Your task to perform on an android device: open app "Gmail" (install if not already installed) and enter user name: "undecidable@inbox.com" and password: "discouraging" Image 0: 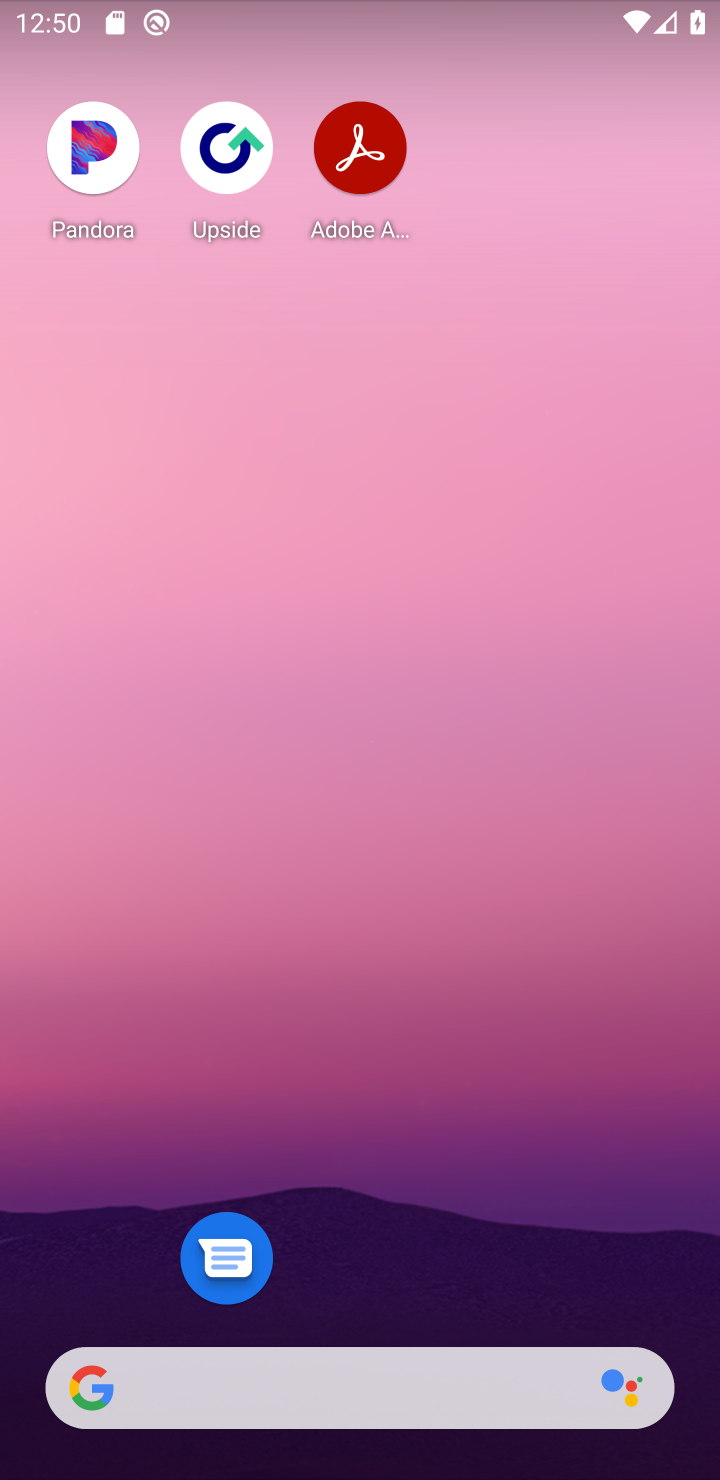
Step 0: drag from (272, 1260) to (389, 345)
Your task to perform on an android device: open app "Gmail" (install if not already installed) and enter user name: "undecidable@inbox.com" and password: "discouraging" Image 1: 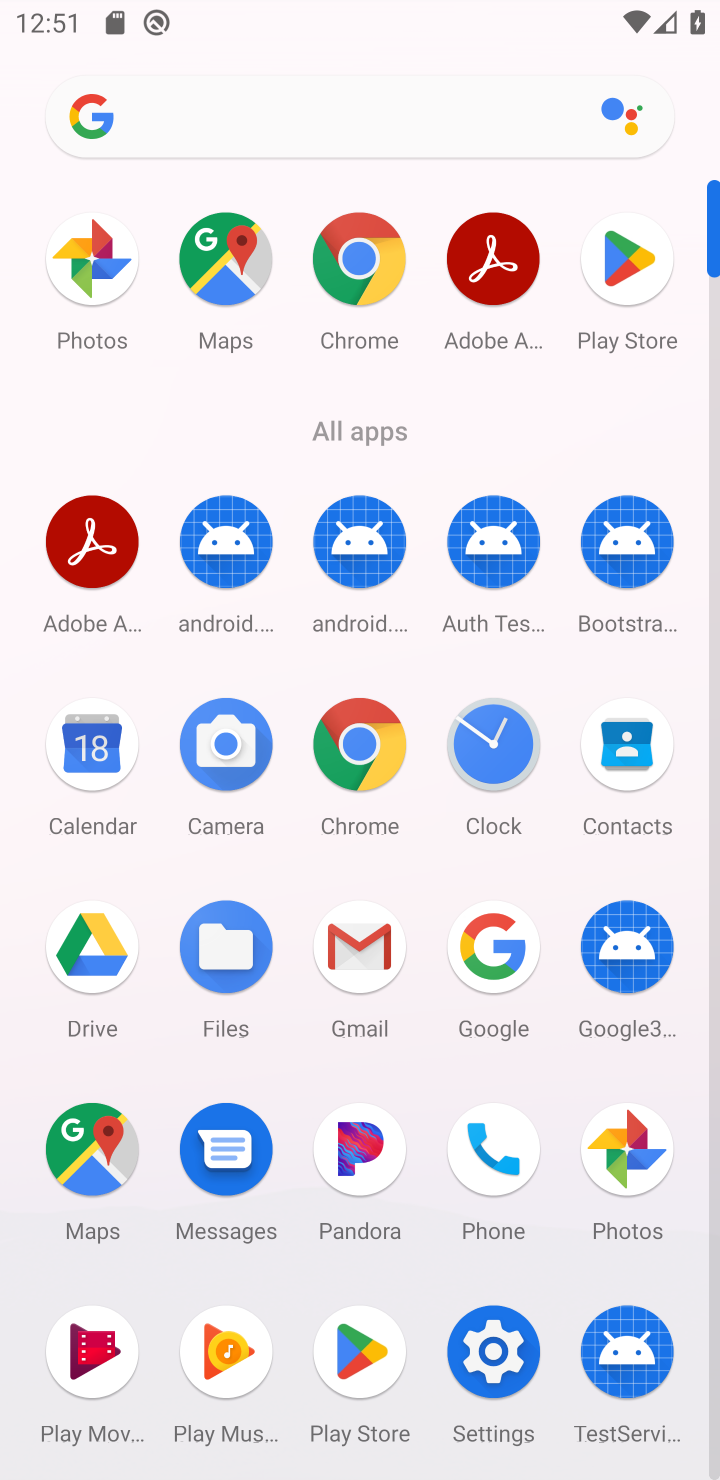
Step 1: click (632, 295)
Your task to perform on an android device: open app "Gmail" (install if not already installed) and enter user name: "undecidable@inbox.com" and password: "discouraging" Image 2: 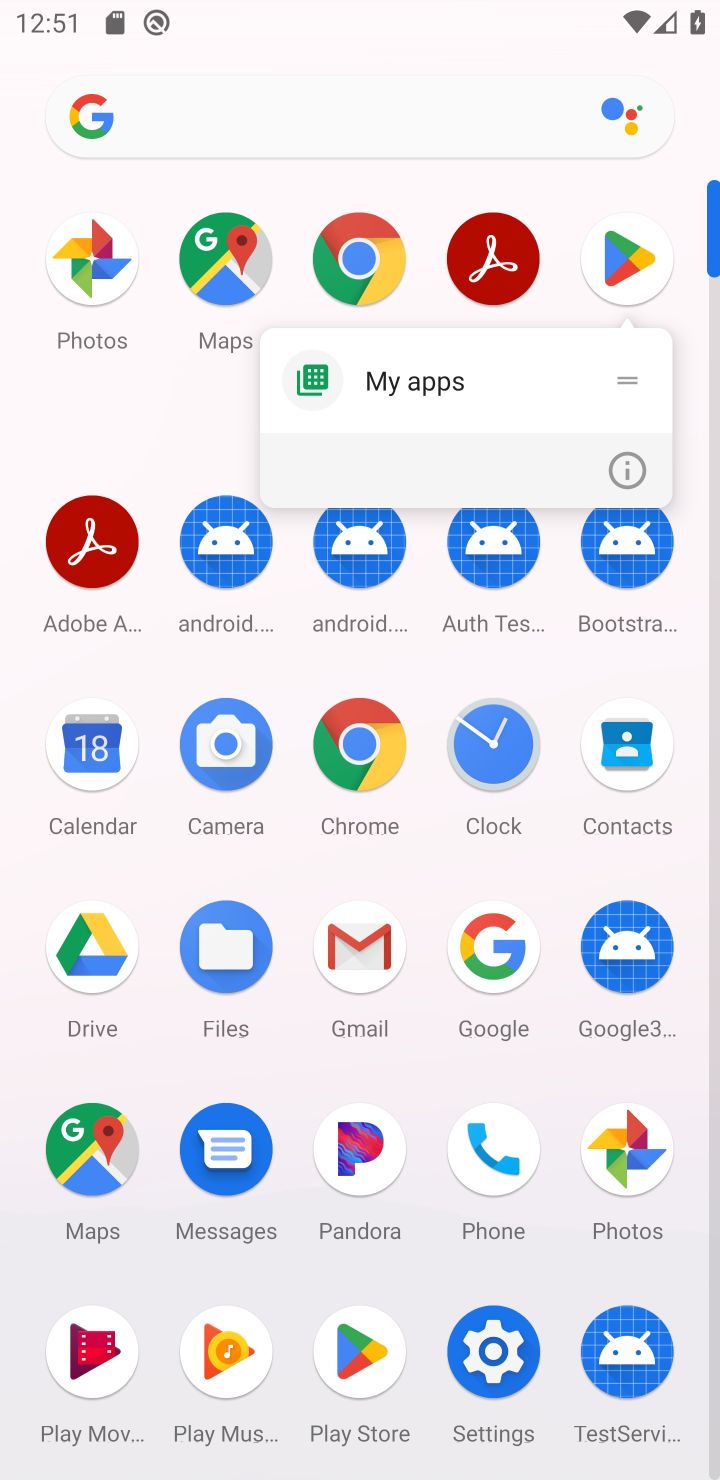
Step 2: click (632, 284)
Your task to perform on an android device: open app "Gmail" (install if not already installed) and enter user name: "undecidable@inbox.com" and password: "discouraging" Image 3: 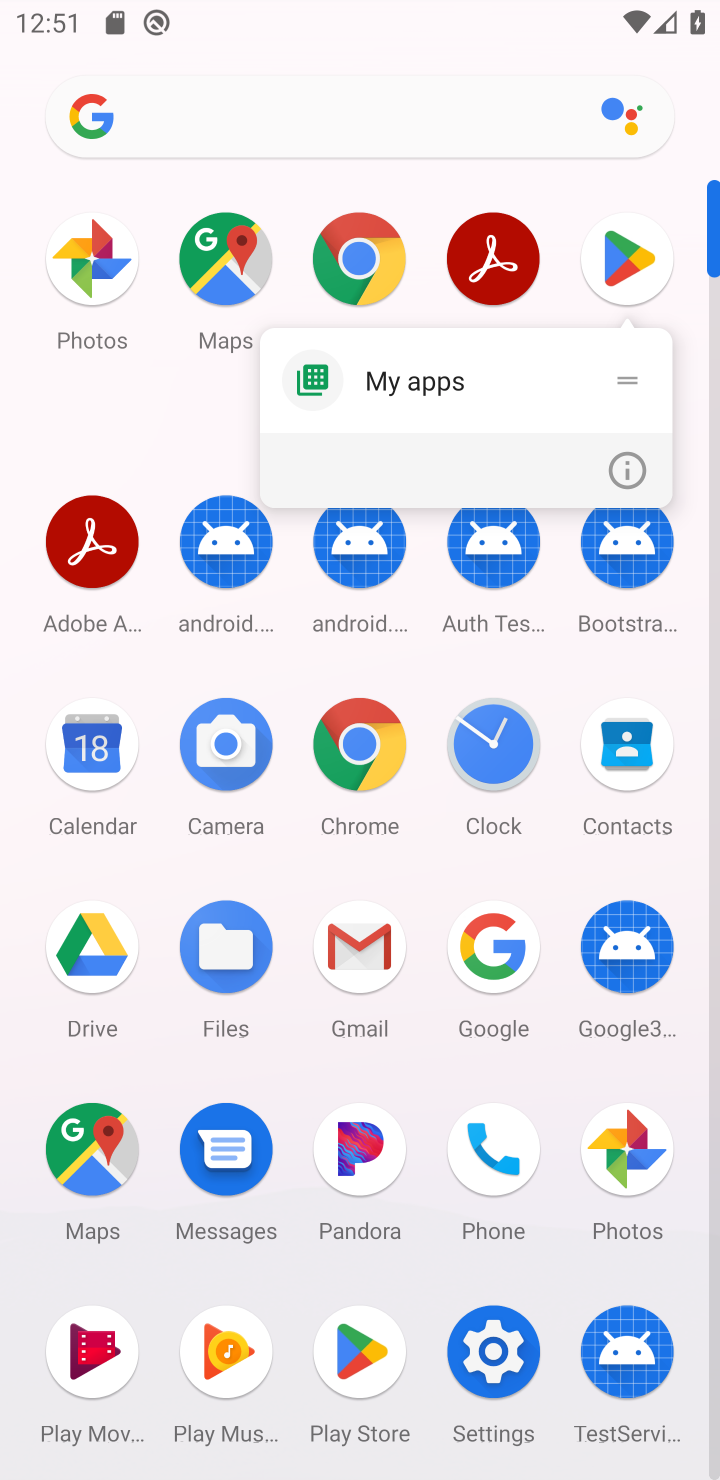
Step 3: click (632, 284)
Your task to perform on an android device: open app "Gmail" (install if not already installed) and enter user name: "undecidable@inbox.com" and password: "discouraging" Image 4: 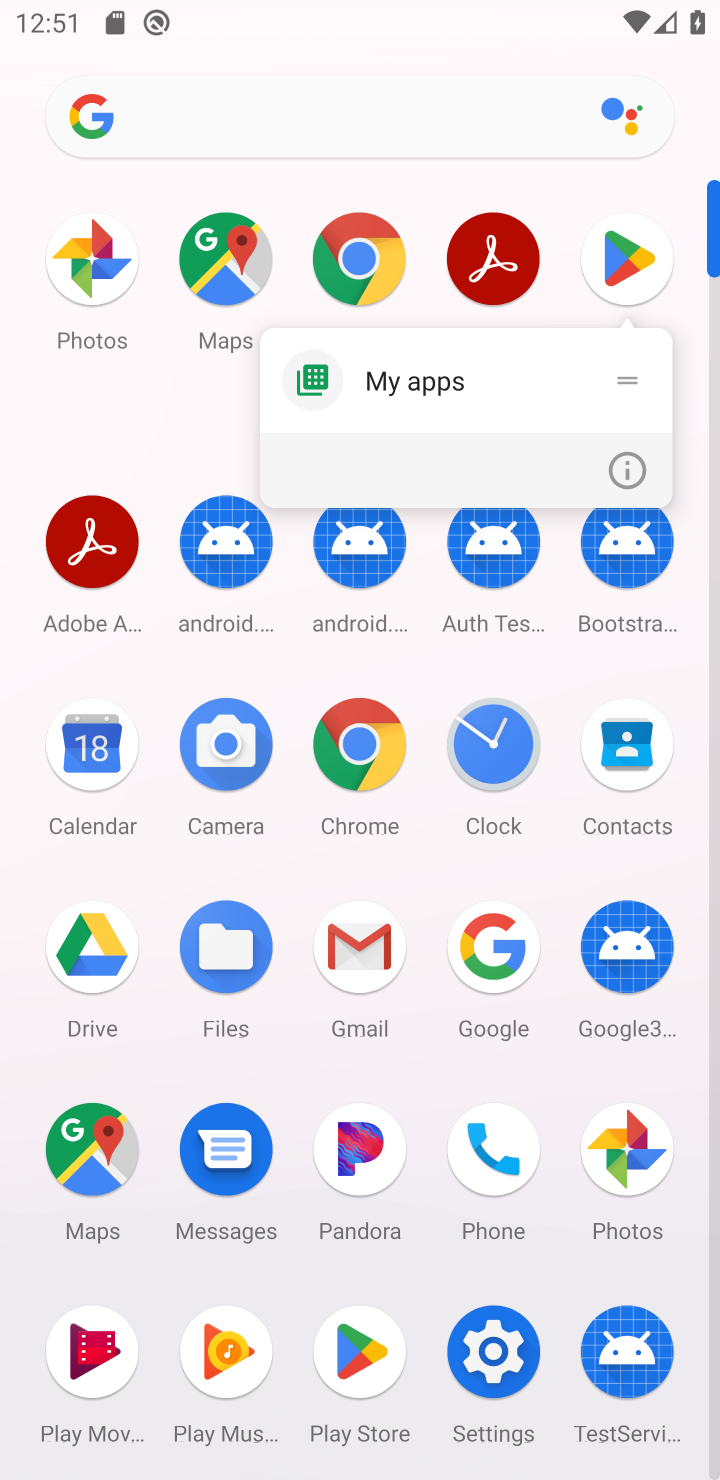
Step 4: click (620, 254)
Your task to perform on an android device: open app "Gmail" (install if not already installed) and enter user name: "undecidable@inbox.com" and password: "discouraging" Image 5: 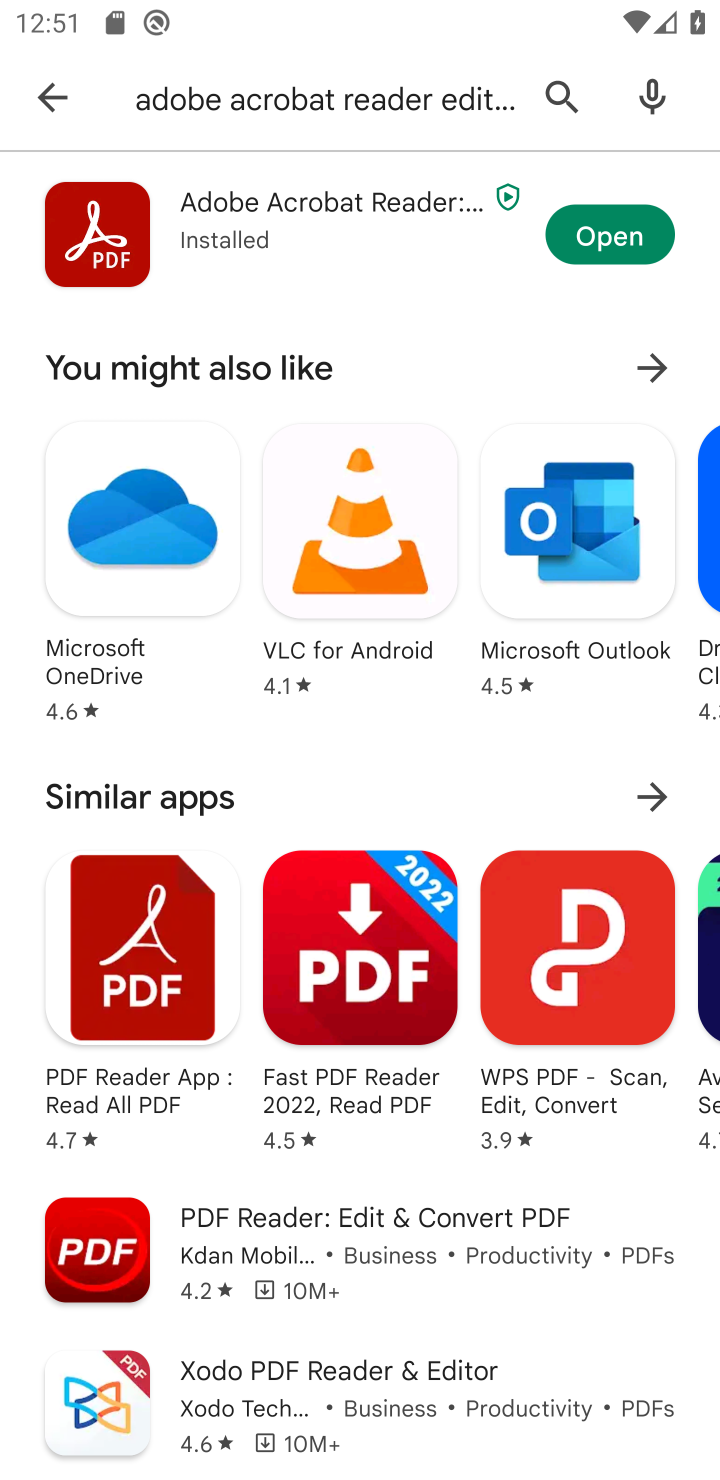
Step 5: click (31, 76)
Your task to perform on an android device: open app "Gmail" (install if not already installed) and enter user name: "undecidable@inbox.com" and password: "discouraging" Image 6: 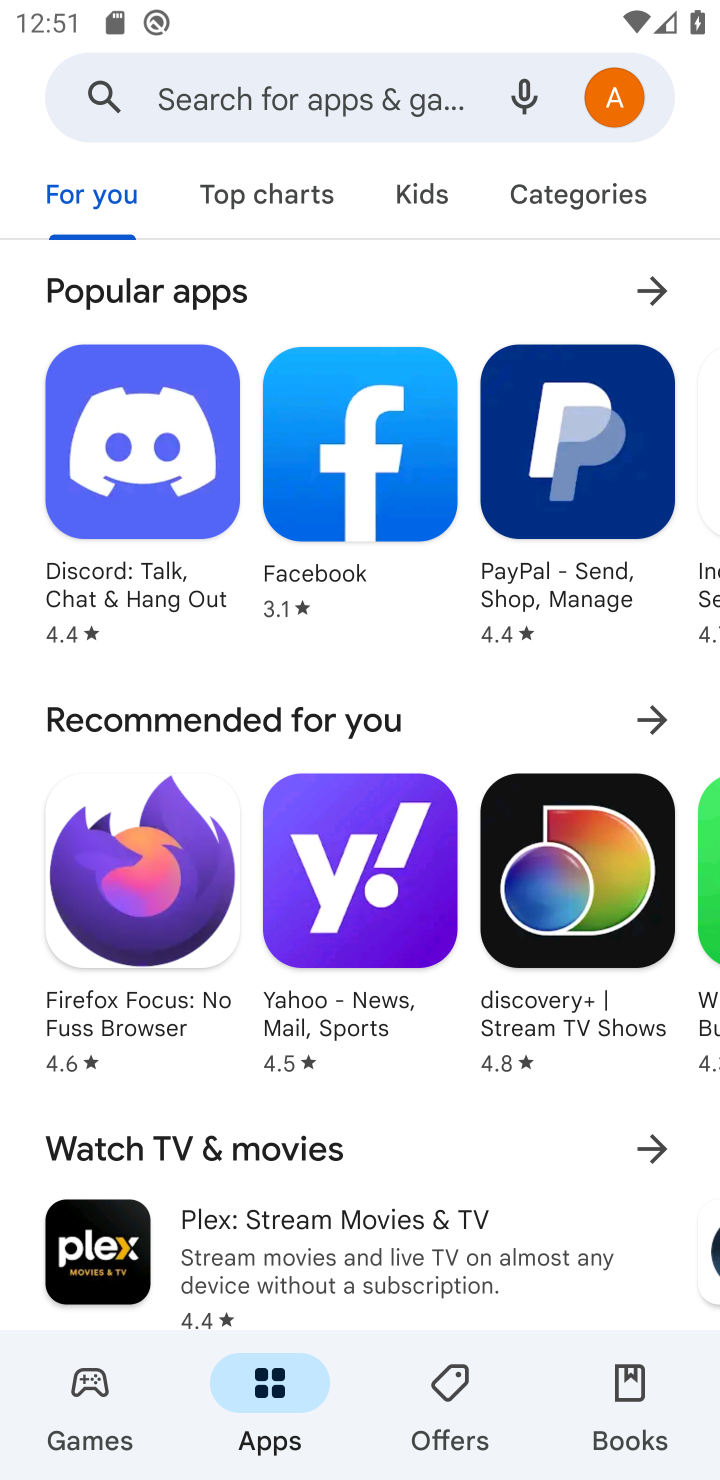
Step 6: click (305, 85)
Your task to perform on an android device: open app "Gmail" (install if not already installed) and enter user name: "undecidable@inbox.com" and password: "discouraging" Image 7: 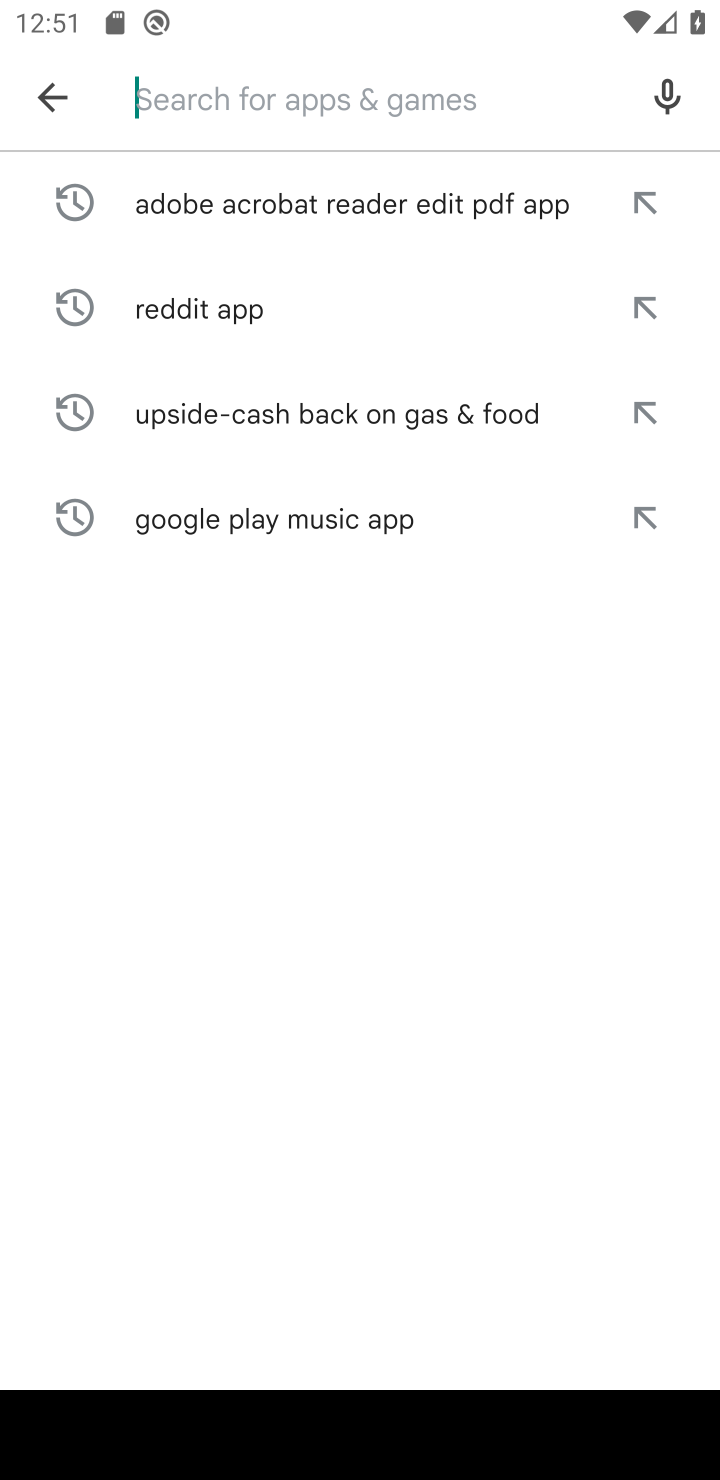
Step 7: type "gmail "
Your task to perform on an android device: open app "Gmail" (install if not already installed) and enter user name: "undecidable@inbox.com" and password: "discouraging" Image 8: 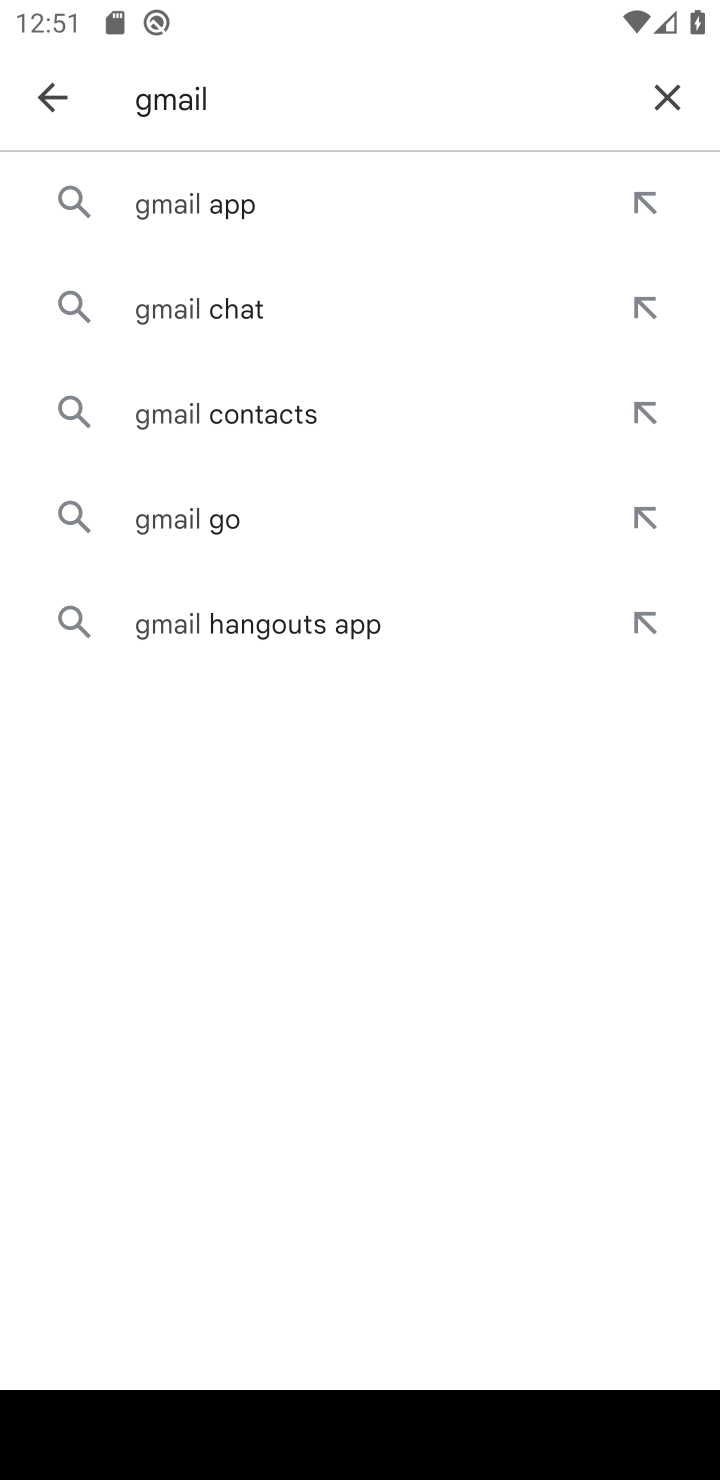
Step 8: click (284, 207)
Your task to perform on an android device: open app "Gmail" (install if not already installed) and enter user name: "undecidable@inbox.com" and password: "discouraging" Image 9: 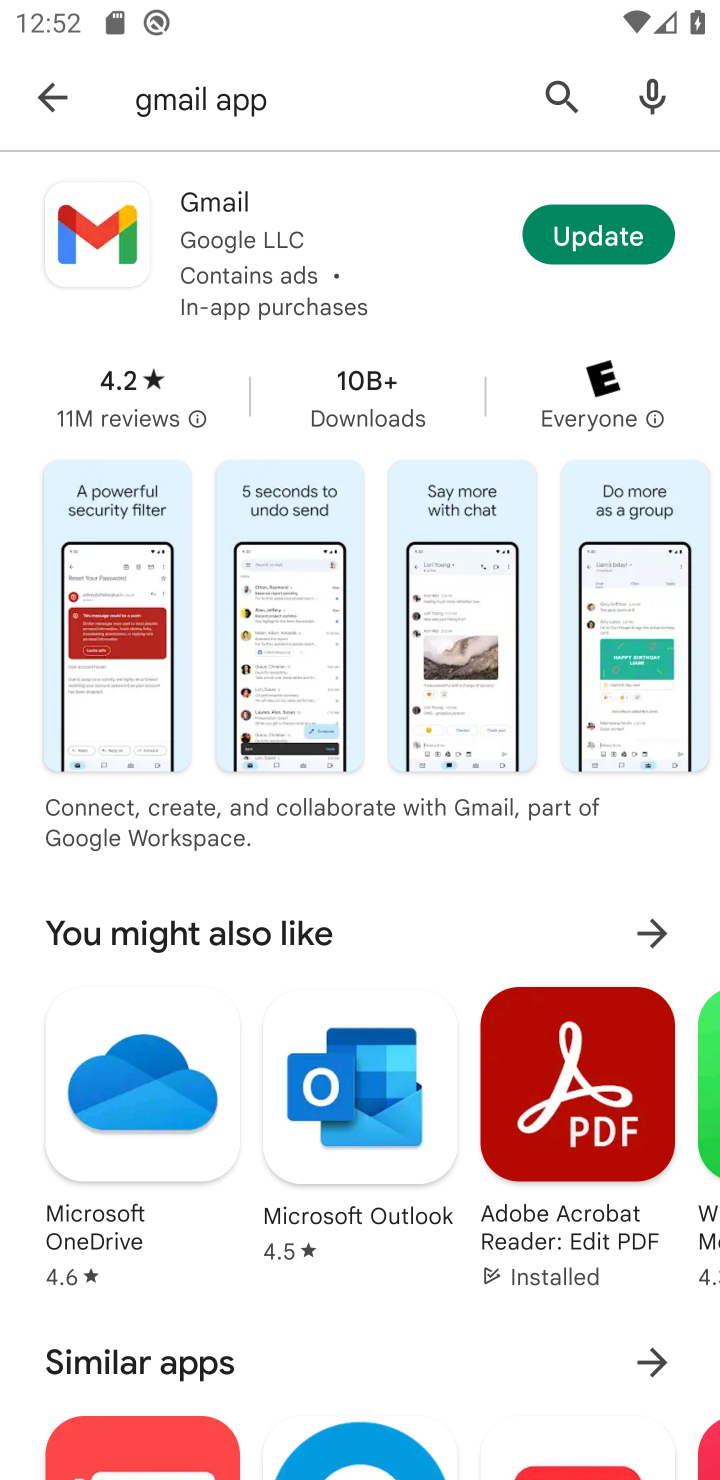
Step 9: click (551, 244)
Your task to perform on an android device: open app "Gmail" (install if not already installed) and enter user name: "undecidable@inbox.com" and password: "discouraging" Image 10: 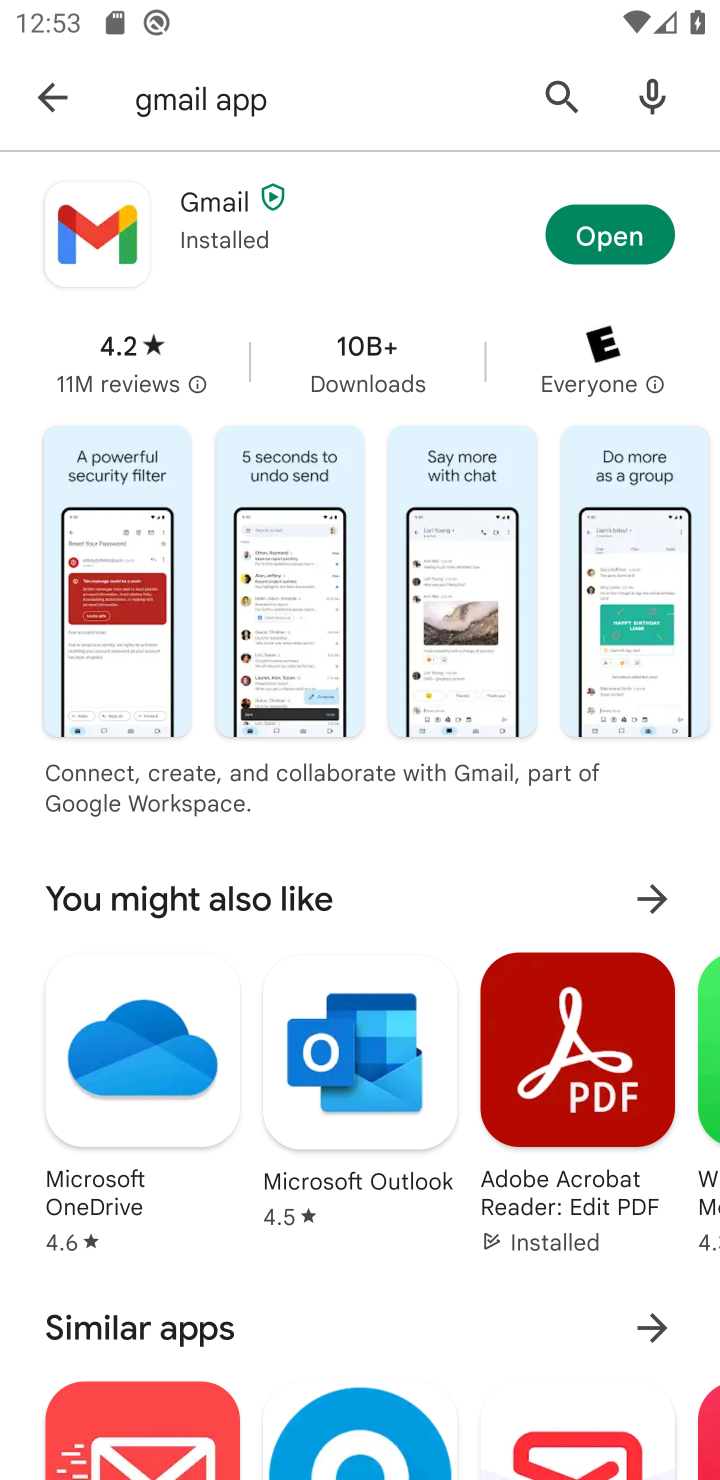
Step 10: click (620, 223)
Your task to perform on an android device: open app "Gmail" (install if not already installed) and enter user name: "undecidable@inbox.com" and password: "discouraging" Image 11: 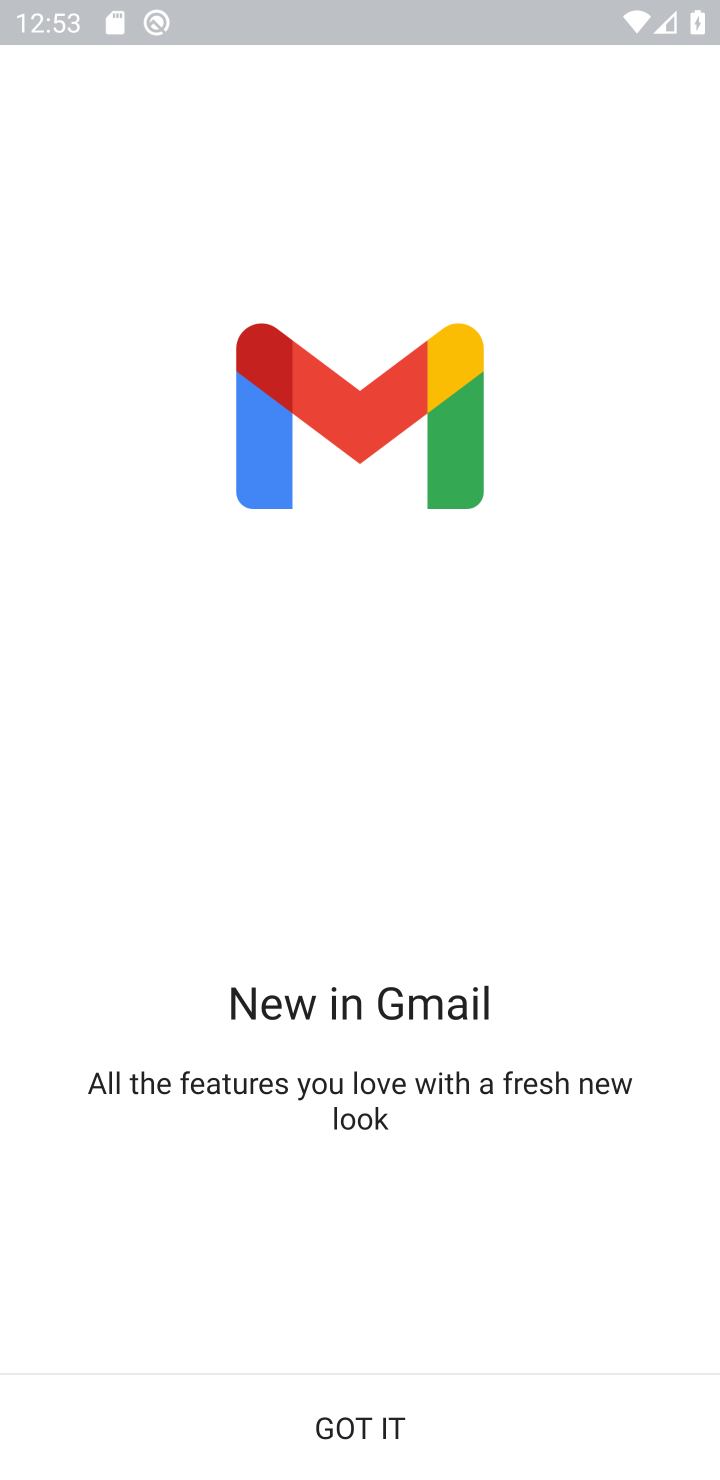
Step 11: click (326, 1437)
Your task to perform on an android device: open app "Gmail" (install if not already installed) and enter user name: "undecidable@inbox.com" and password: "discouraging" Image 12: 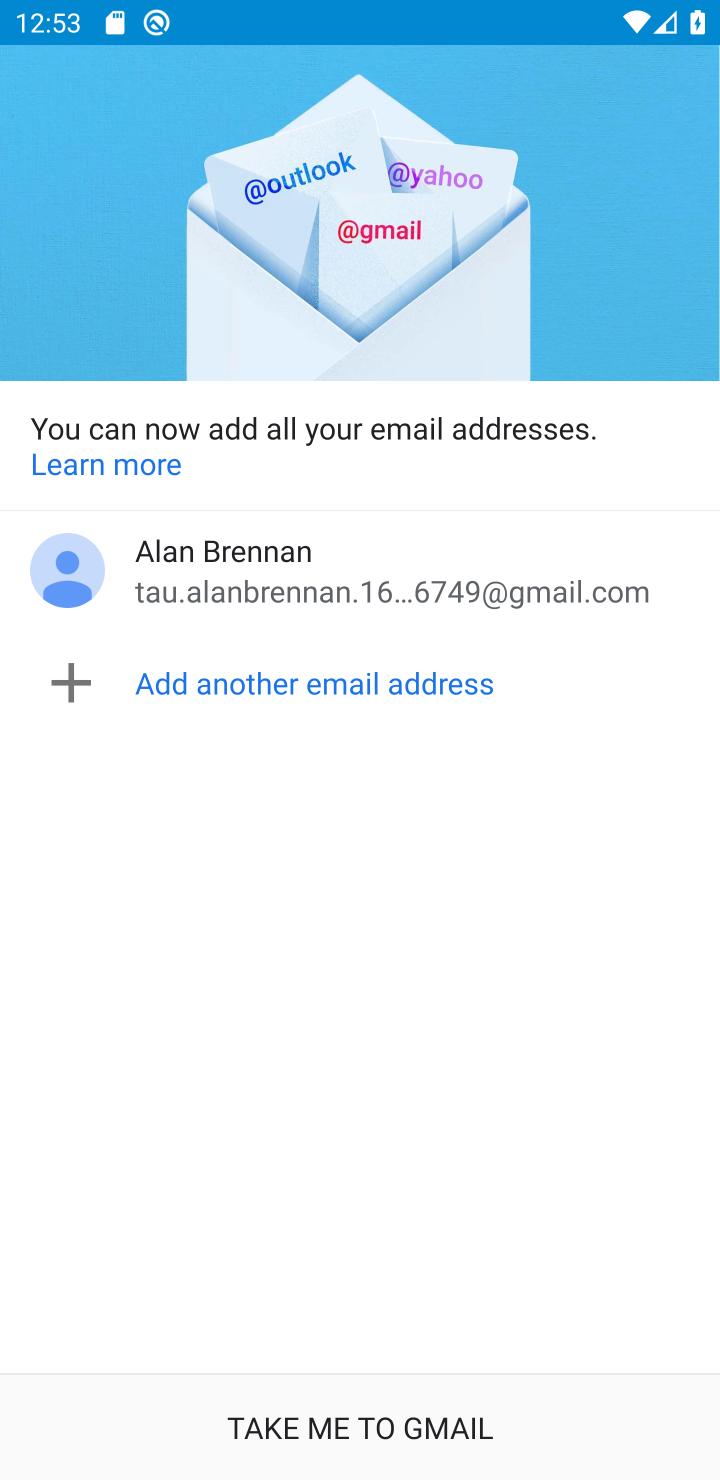
Step 12: click (358, 1415)
Your task to perform on an android device: open app "Gmail" (install if not already installed) and enter user name: "undecidable@inbox.com" and password: "discouraging" Image 13: 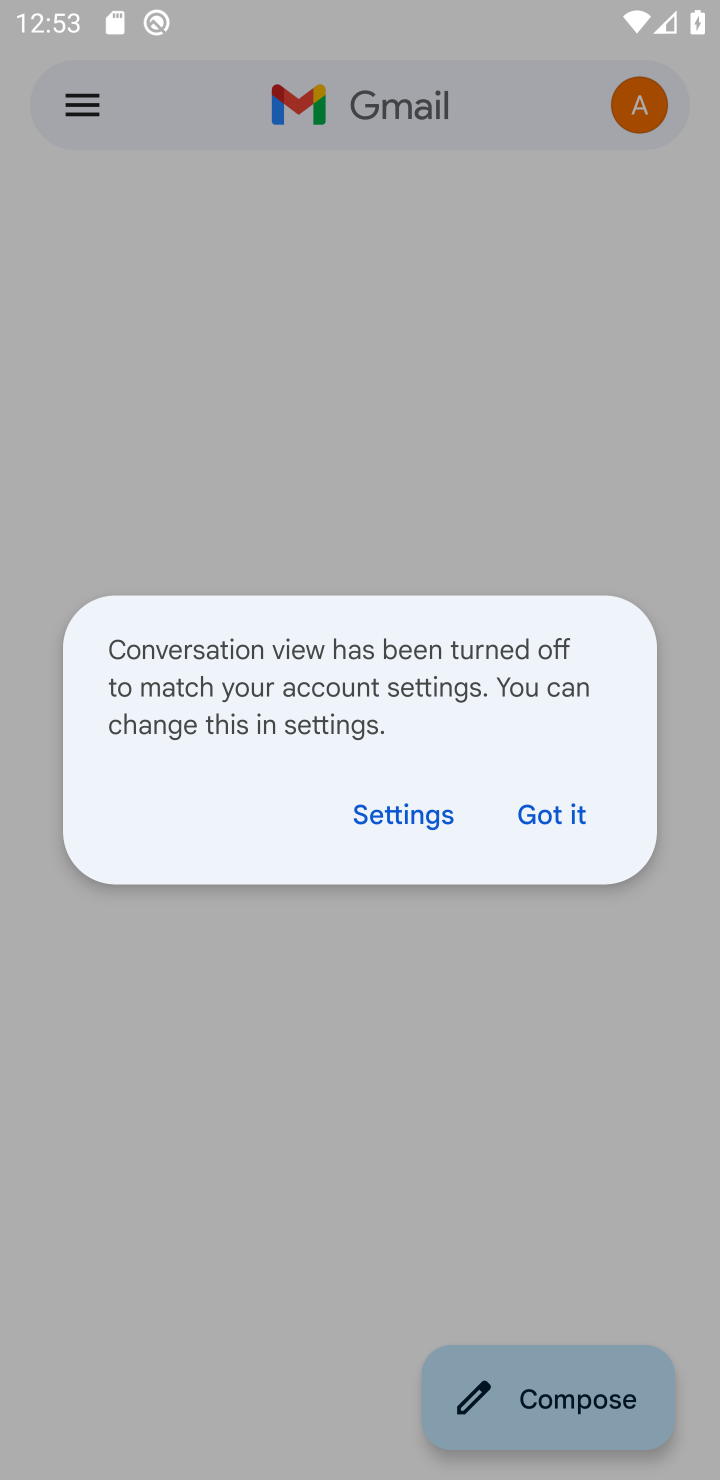
Step 13: click (506, 807)
Your task to perform on an android device: open app "Gmail" (install if not already installed) and enter user name: "undecidable@inbox.com" and password: "discouraging" Image 14: 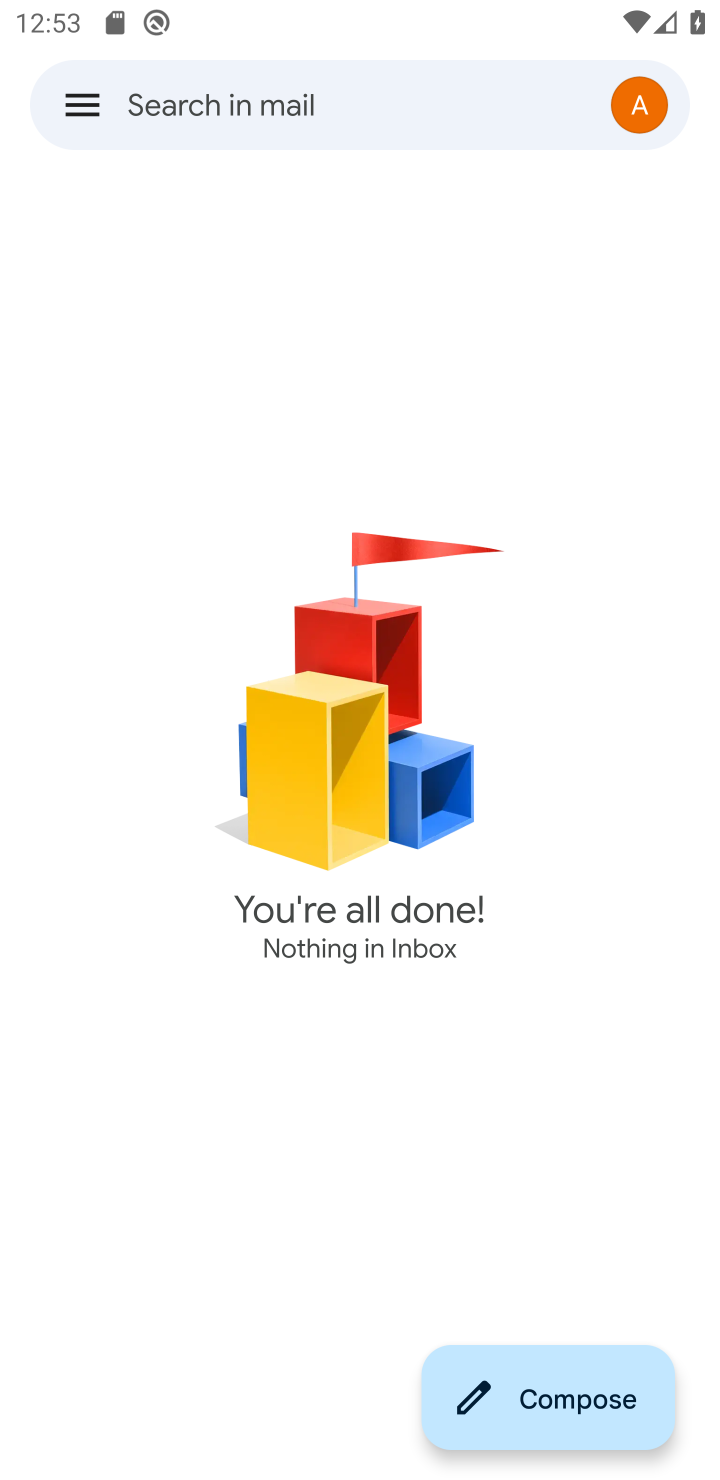
Step 14: click (72, 94)
Your task to perform on an android device: open app "Gmail" (install if not already installed) and enter user name: "undecidable@inbox.com" and password: "discouraging" Image 15: 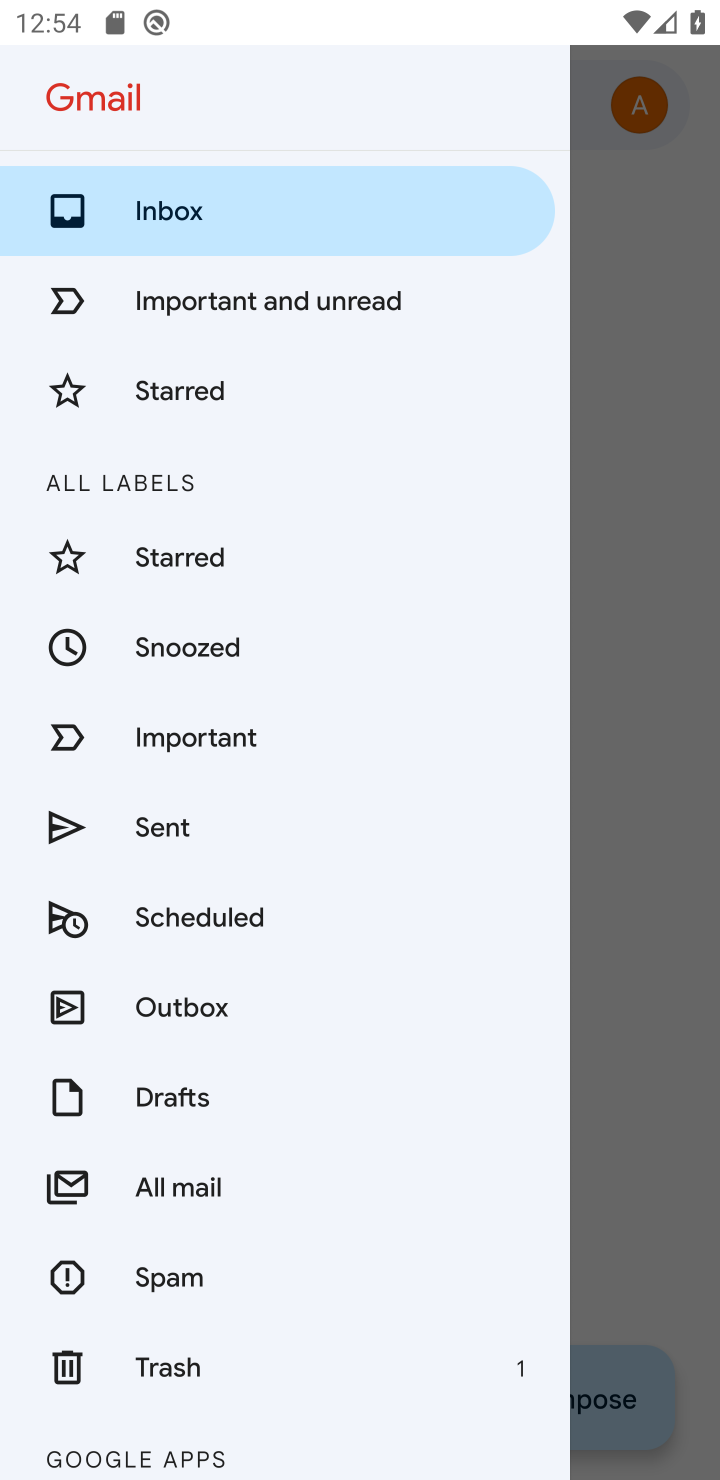
Step 15: task complete